Your task to perform on an android device: What's the weather today? Image 0: 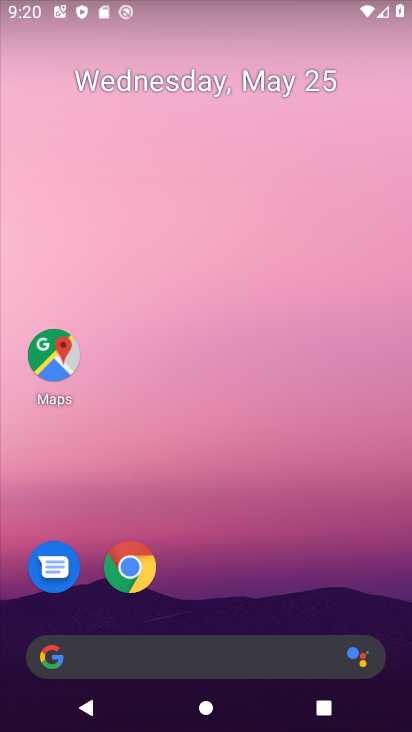
Step 0: click (183, 656)
Your task to perform on an android device: What's the weather today? Image 1: 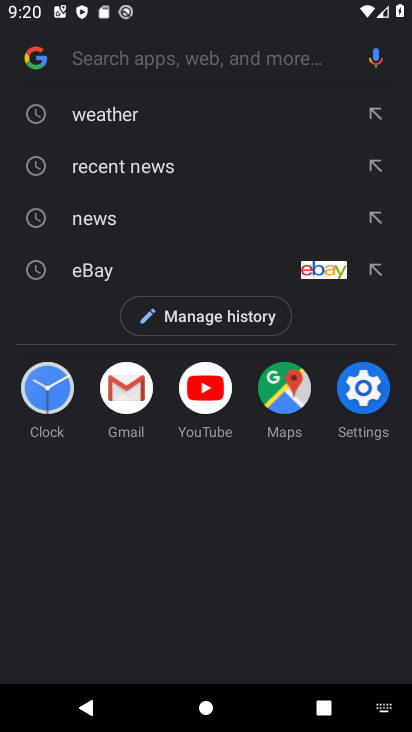
Step 1: click (150, 122)
Your task to perform on an android device: What's the weather today? Image 2: 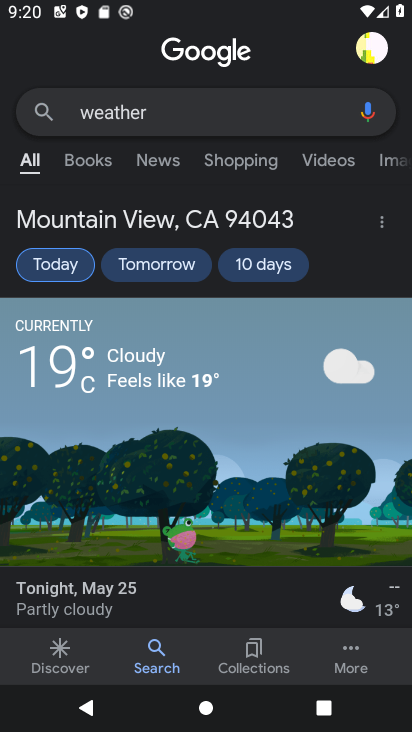
Step 2: task complete